Your task to perform on an android device: check android version Image 0: 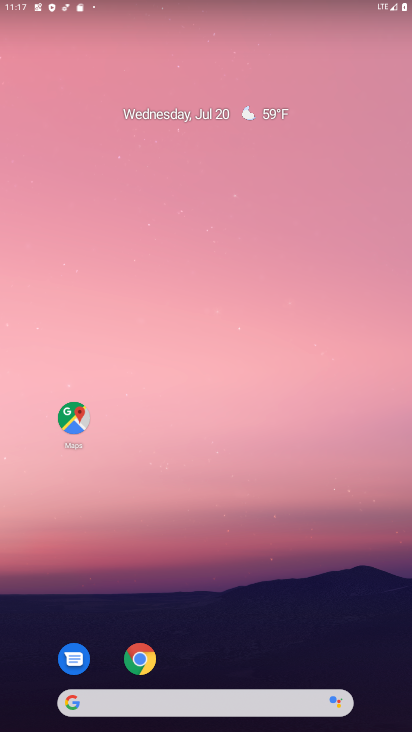
Step 0: drag from (195, 727) to (211, 144)
Your task to perform on an android device: check android version Image 1: 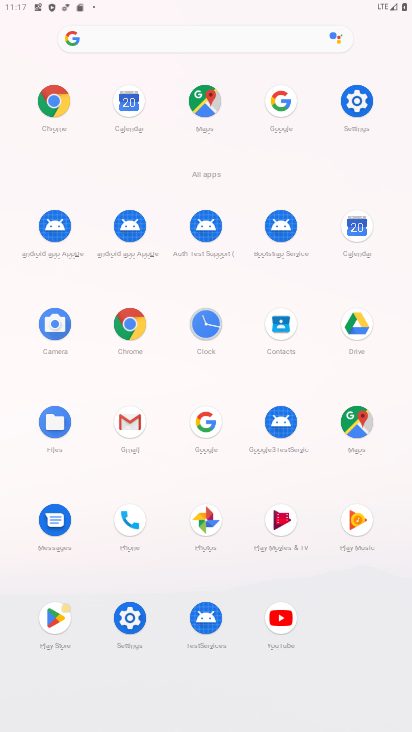
Step 1: click (355, 99)
Your task to perform on an android device: check android version Image 2: 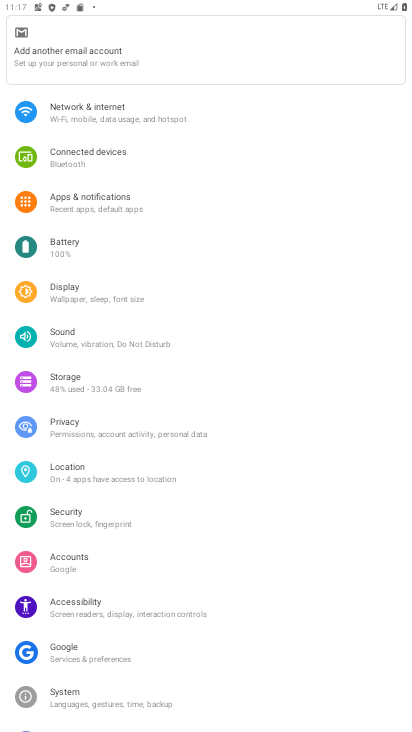
Step 2: click (355, 99)
Your task to perform on an android device: check android version Image 3: 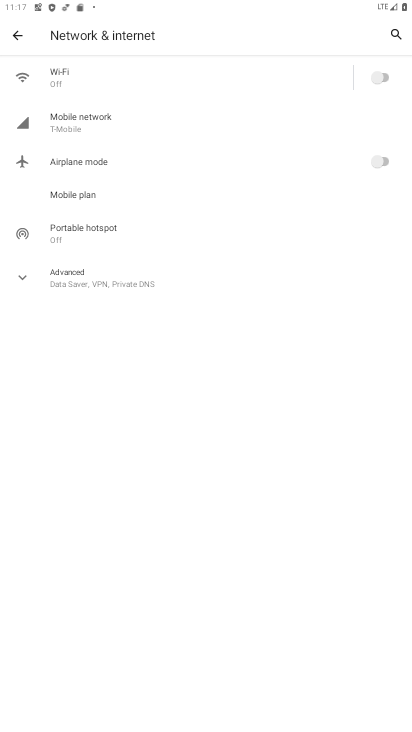
Step 3: task complete